Your task to perform on an android device: add a contact Image 0: 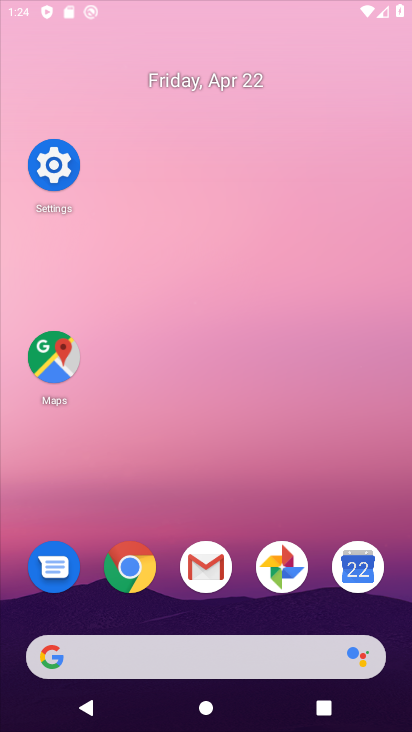
Step 0: click (210, 571)
Your task to perform on an android device: add a contact Image 1: 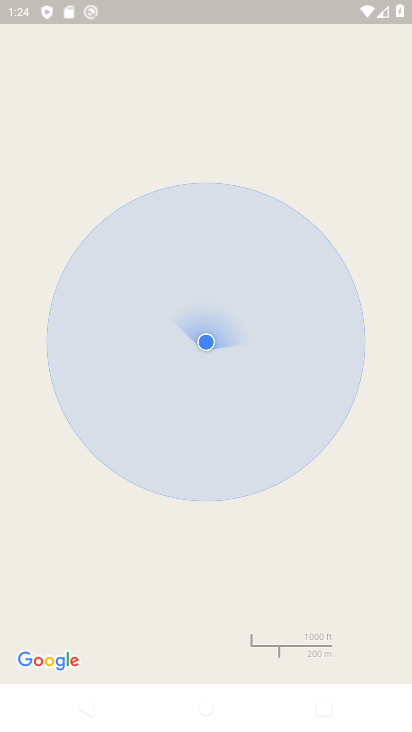
Step 1: press home button
Your task to perform on an android device: add a contact Image 2: 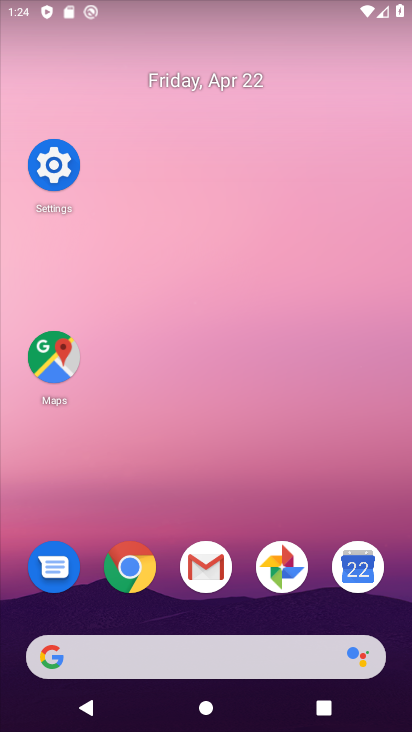
Step 2: drag from (244, 508) to (235, 20)
Your task to perform on an android device: add a contact Image 3: 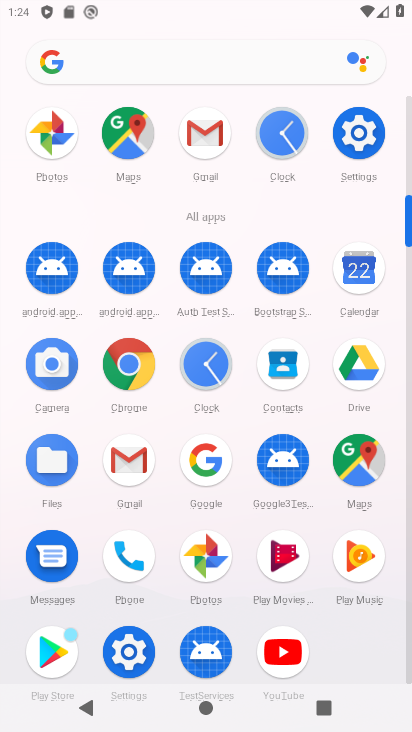
Step 3: click (283, 363)
Your task to perform on an android device: add a contact Image 4: 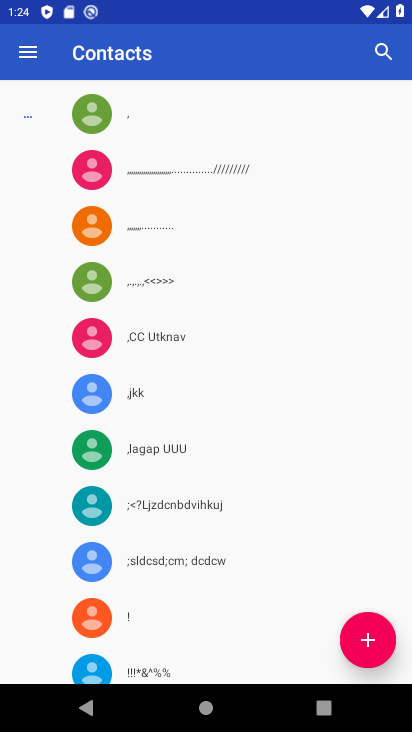
Step 4: click (362, 639)
Your task to perform on an android device: add a contact Image 5: 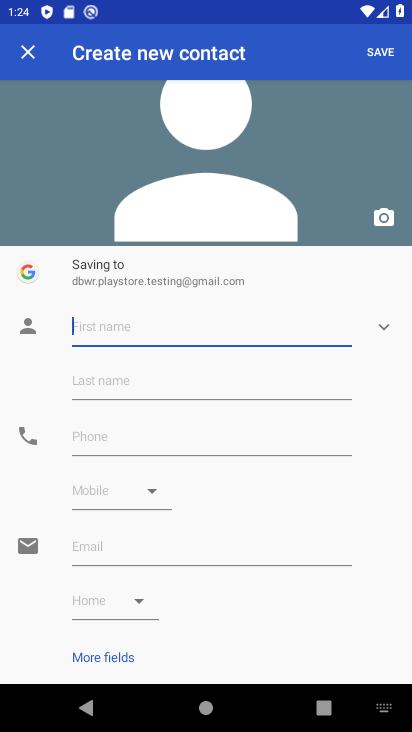
Step 5: type "gl"
Your task to perform on an android device: add a contact Image 6: 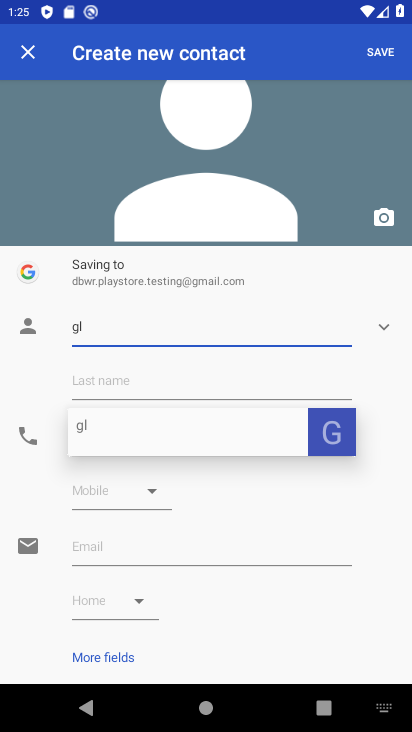
Step 6: click (378, 421)
Your task to perform on an android device: add a contact Image 7: 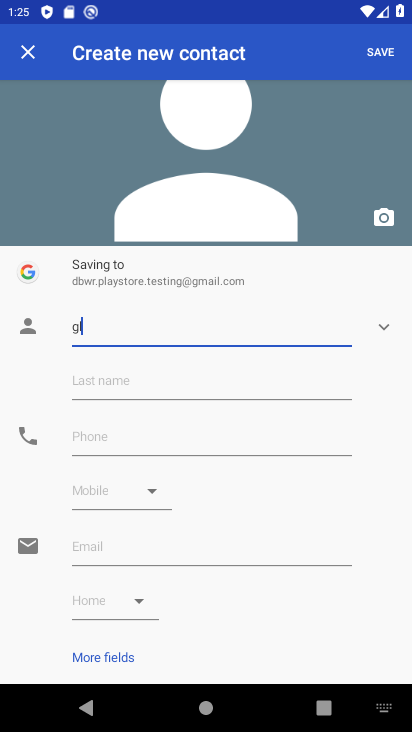
Step 7: click (182, 433)
Your task to perform on an android device: add a contact Image 8: 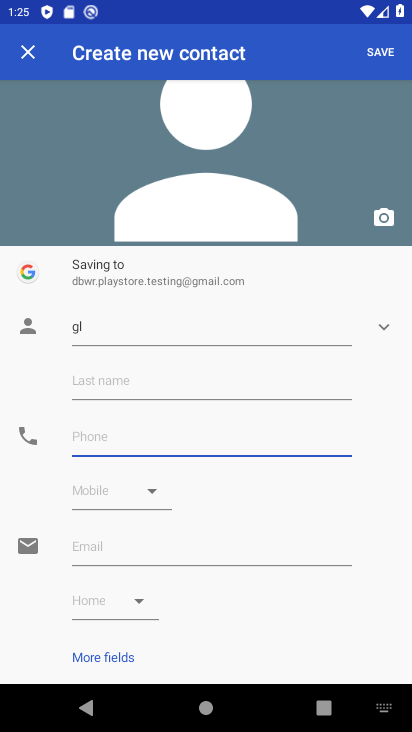
Step 8: type "967"
Your task to perform on an android device: add a contact Image 9: 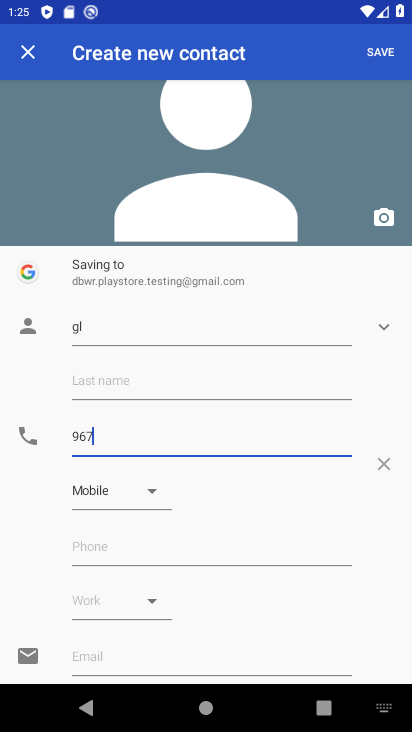
Step 9: click (381, 51)
Your task to perform on an android device: add a contact Image 10: 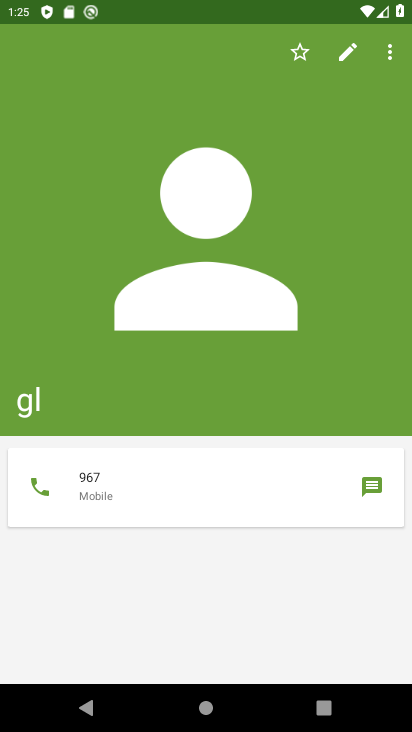
Step 10: task complete